Your task to perform on an android device: open sync settings in chrome Image 0: 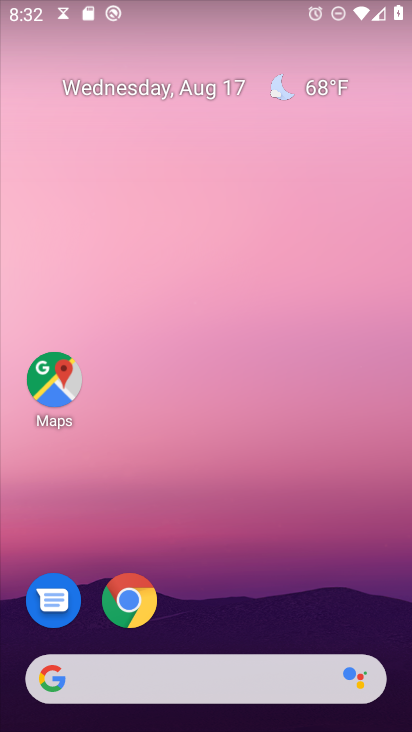
Step 0: press home button
Your task to perform on an android device: open sync settings in chrome Image 1: 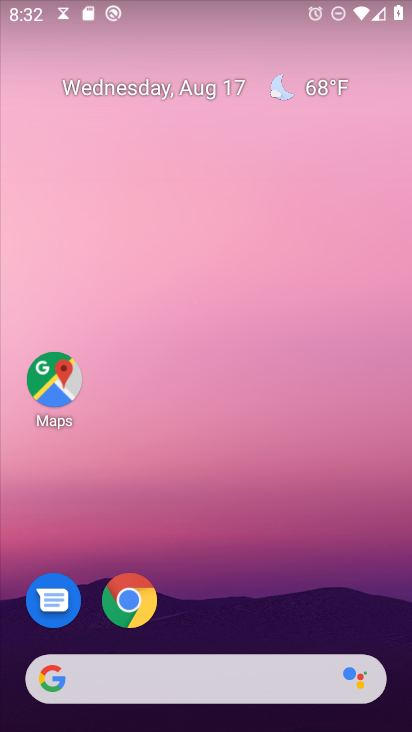
Step 1: click (130, 605)
Your task to perform on an android device: open sync settings in chrome Image 2: 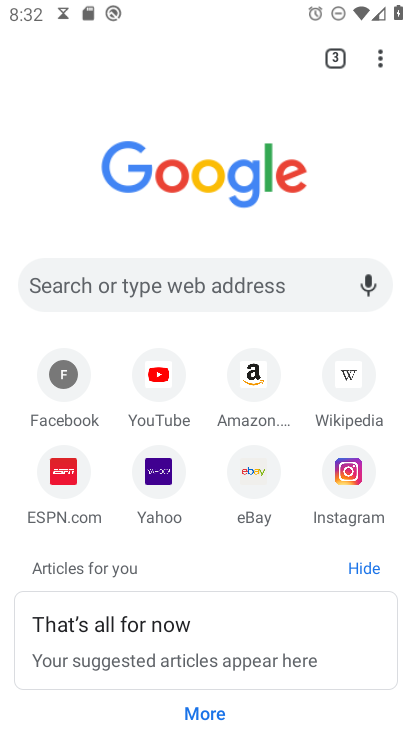
Step 2: drag from (383, 59) to (192, 484)
Your task to perform on an android device: open sync settings in chrome Image 3: 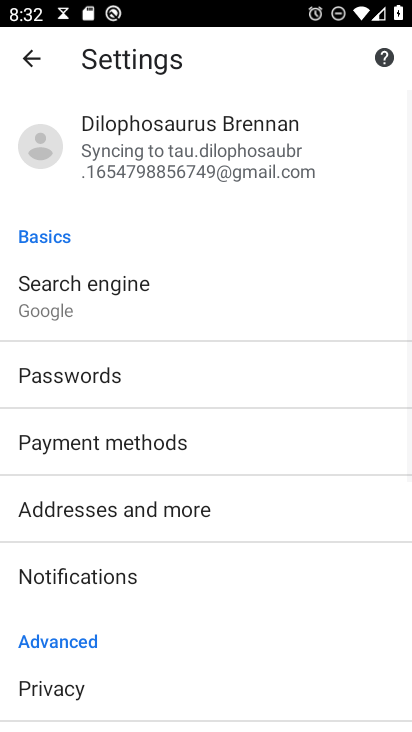
Step 3: drag from (122, 642) to (137, 372)
Your task to perform on an android device: open sync settings in chrome Image 4: 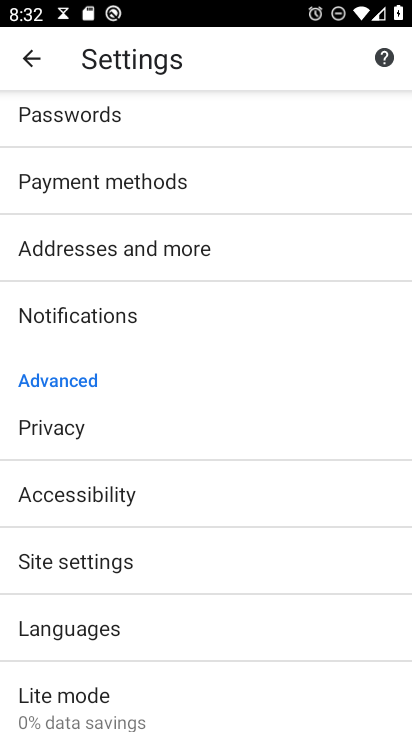
Step 4: click (81, 560)
Your task to perform on an android device: open sync settings in chrome Image 5: 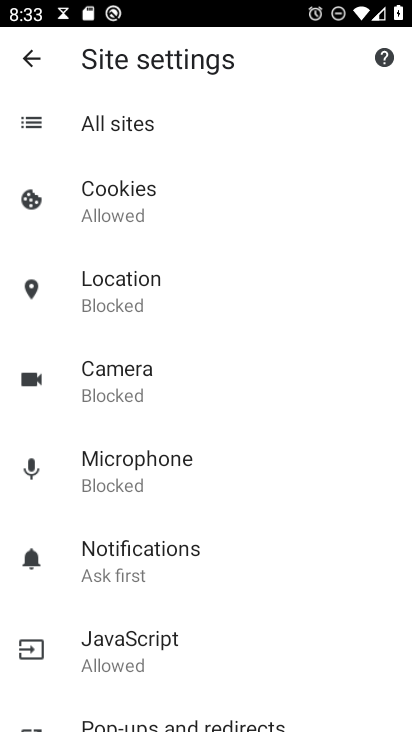
Step 5: drag from (194, 603) to (230, 207)
Your task to perform on an android device: open sync settings in chrome Image 6: 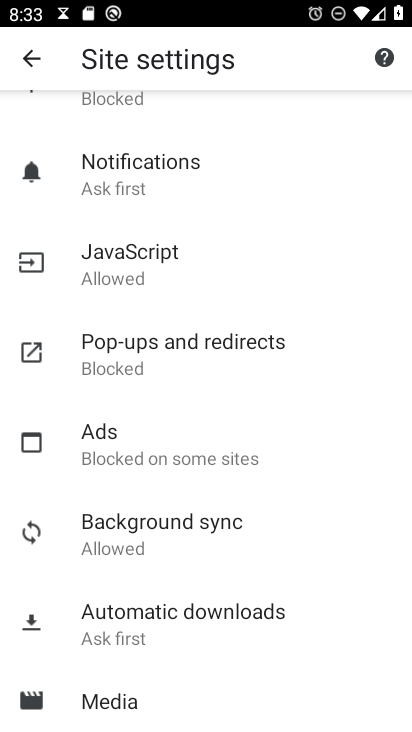
Step 6: click (101, 540)
Your task to perform on an android device: open sync settings in chrome Image 7: 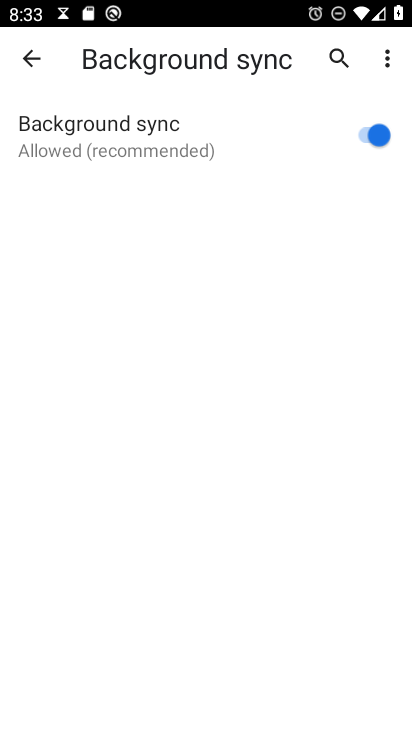
Step 7: task complete